Your task to perform on an android device: open a bookmark in the chrome app Image 0: 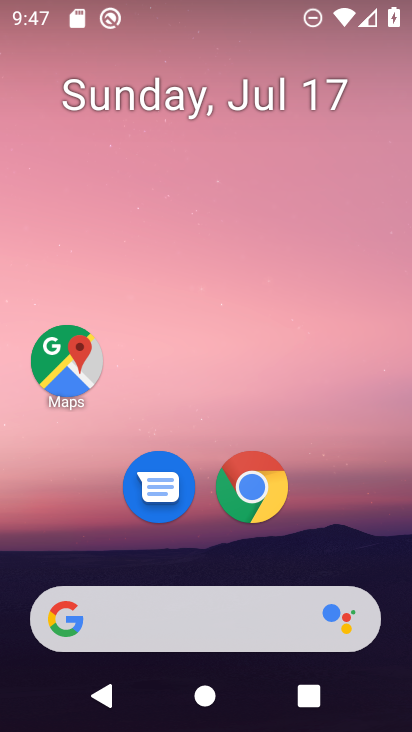
Step 0: drag from (308, 534) to (287, 49)
Your task to perform on an android device: open a bookmark in the chrome app Image 1: 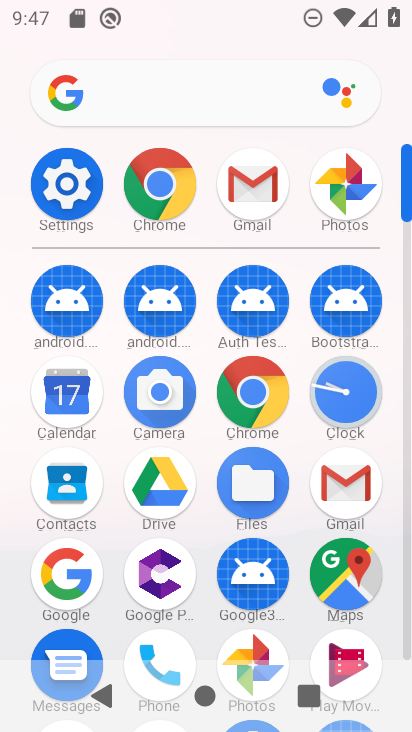
Step 1: click (160, 189)
Your task to perform on an android device: open a bookmark in the chrome app Image 2: 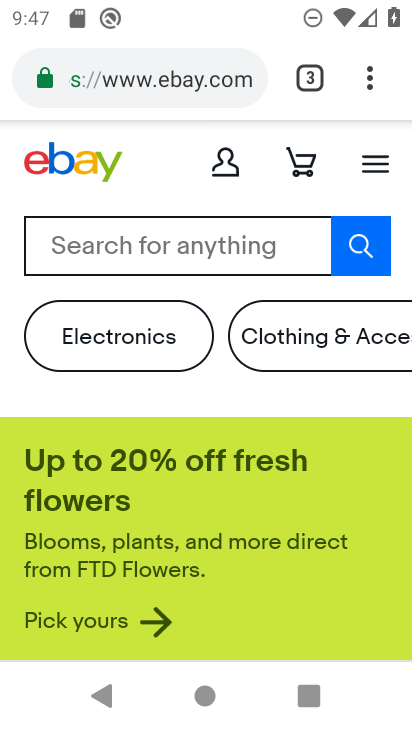
Step 2: drag from (371, 71) to (93, 392)
Your task to perform on an android device: open a bookmark in the chrome app Image 3: 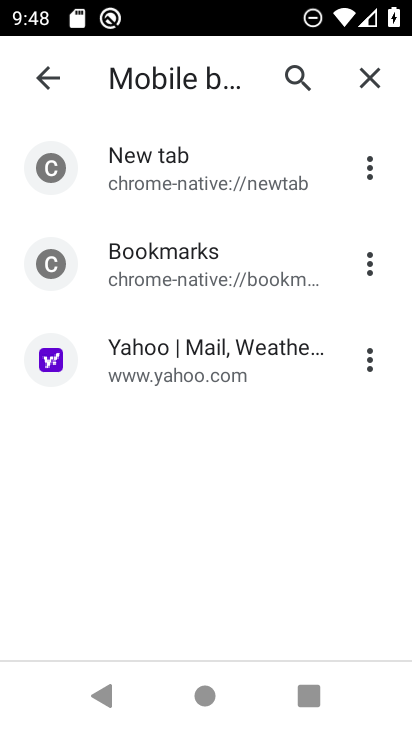
Step 3: click (185, 363)
Your task to perform on an android device: open a bookmark in the chrome app Image 4: 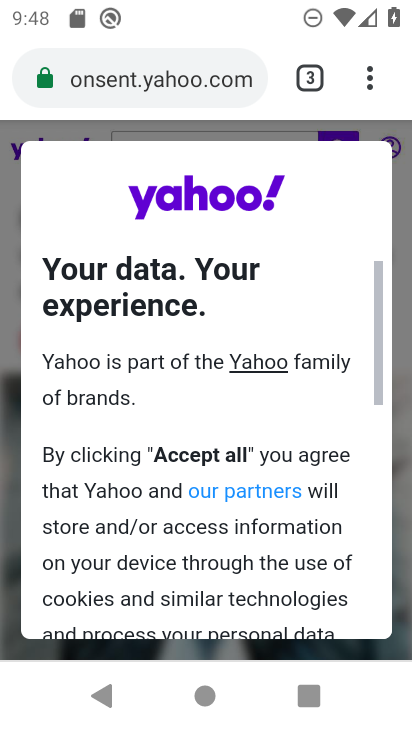
Step 4: task complete